Your task to perform on an android device: What's the weather going to be this weekend? Image 0: 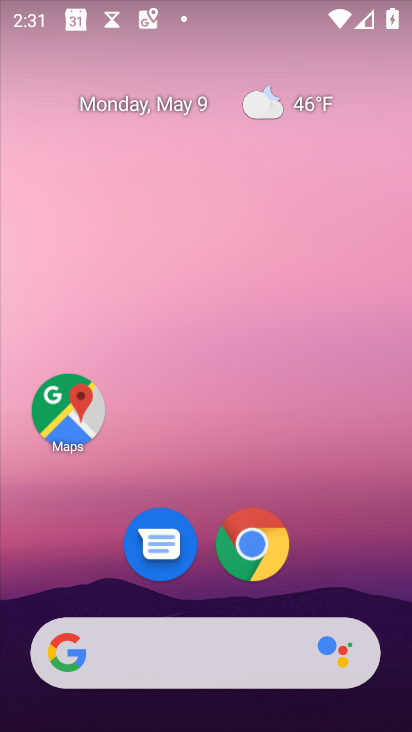
Step 0: click (243, 533)
Your task to perform on an android device: What's the weather going to be this weekend? Image 1: 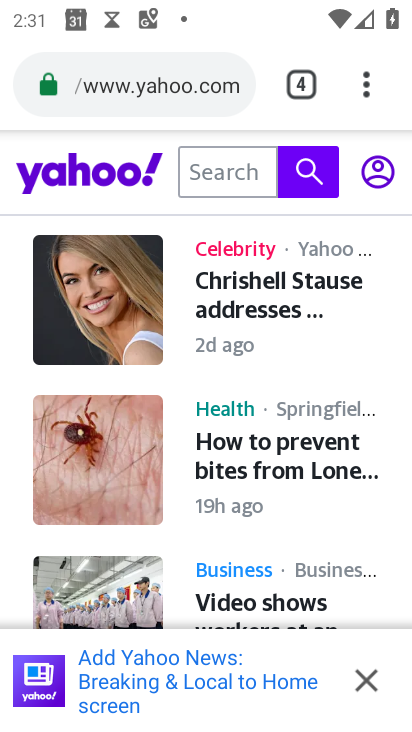
Step 1: click (300, 92)
Your task to perform on an android device: What's the weather going to be this weekend? Image 2: 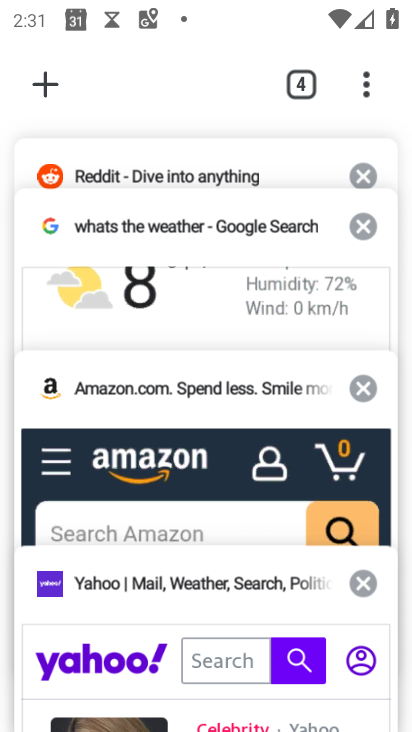
Step 2: click (48, 88)
Your task to perform on an android device: What's the weather going to be this weekend? Image 3: 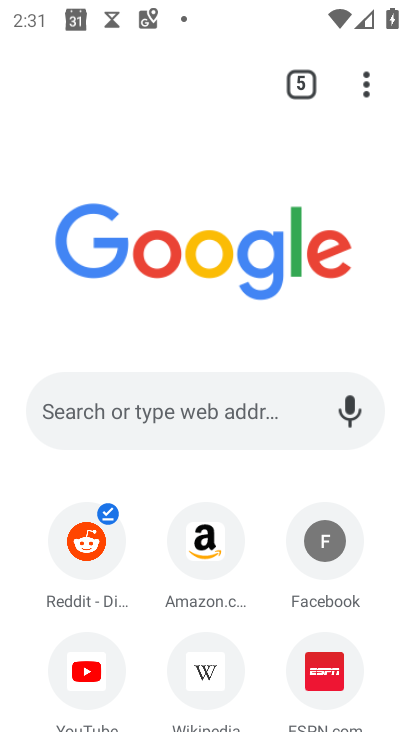
Step 3: click (195, 412)
Your task to perform on an android device: What's the weather going to be this weekend? Image 4: 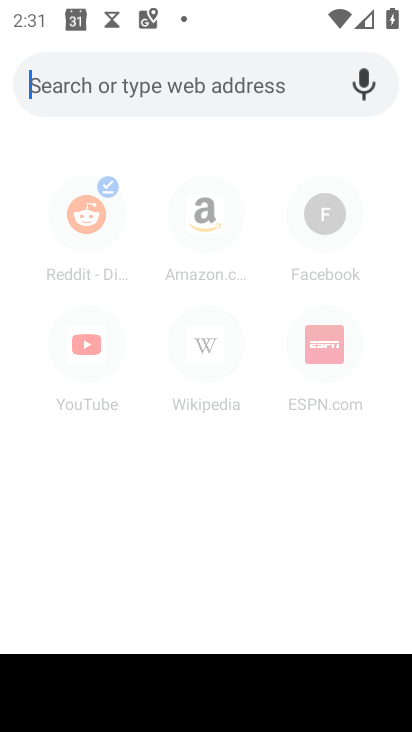
Step 4: click (140, 76)
Your task to perform on an android device: What's the weather going to be this weekend? Image 5: 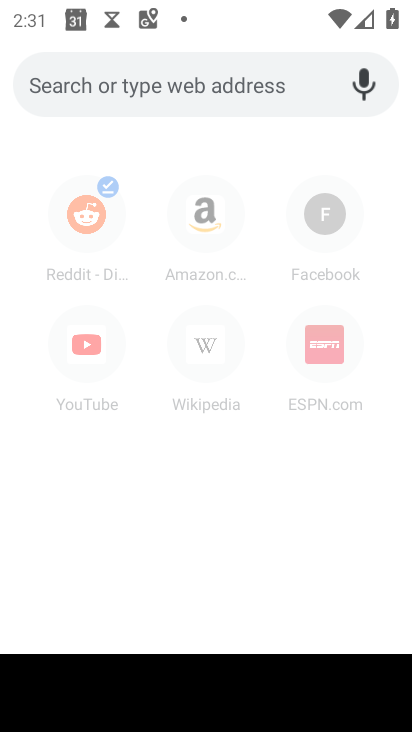
Step 5: type "what the weather going to be thus weekend"
Your task to perform on an android device: What's the weather going to be this weekend? Image 6: 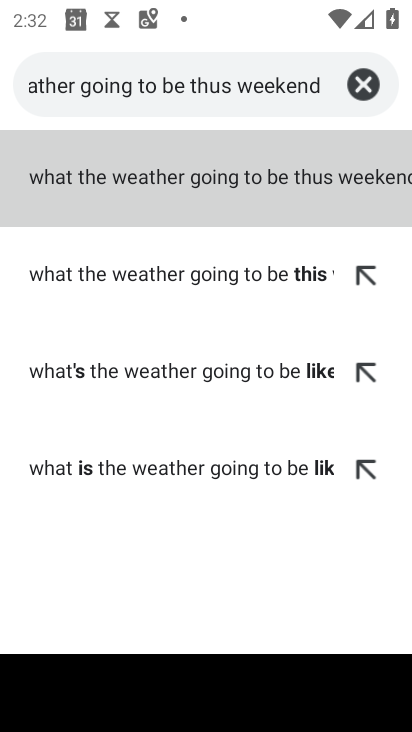
Step 6: click (145, 171)
Your task to perform on an android device: What's the weather going to be this weekend? Image 7: 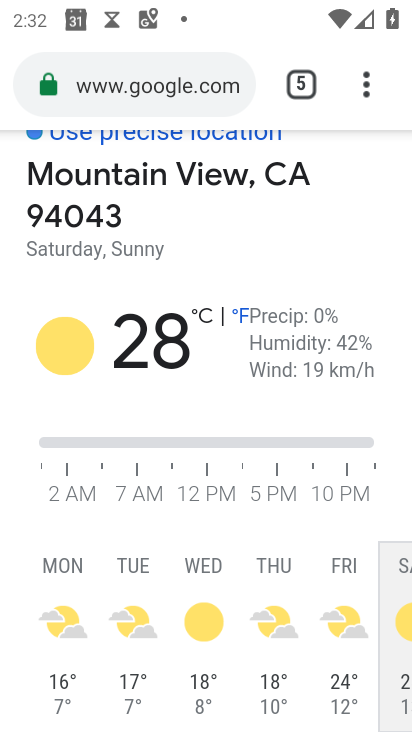
Step 7: drag from (310, 647) to (362, 435)
Your task to perform on an android device: What's the weather going to be this weekend? Image 8: 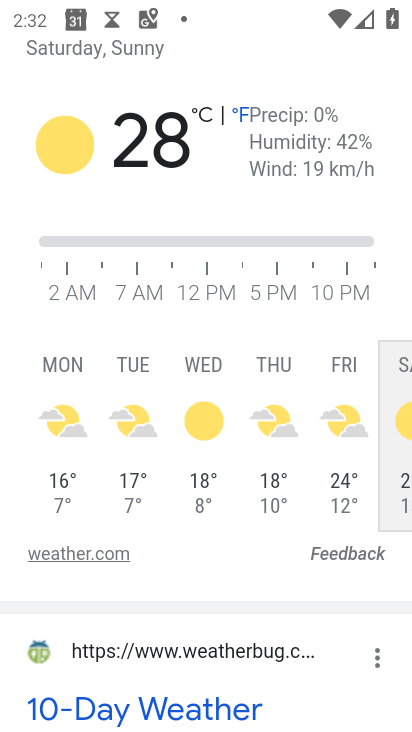
Step 8: drag from (362, 435) to (185, 462)
Your task to perform on an android device: What's the weather going to be this weekend? Image 9: 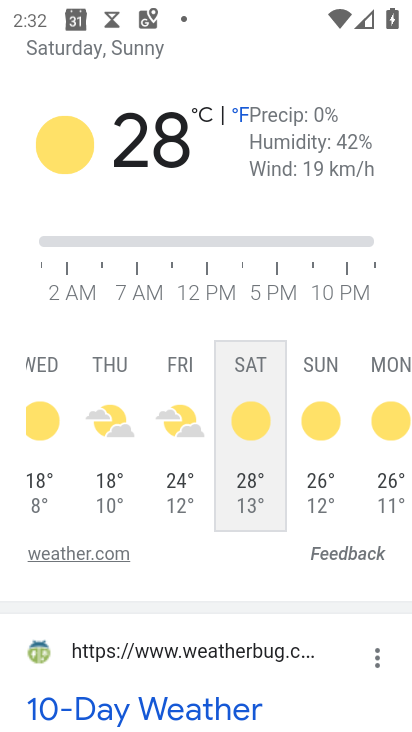
Step 9: click (185, 462)
Your task to perform on an android device: What's the weather going to be this weekend? Image 10: 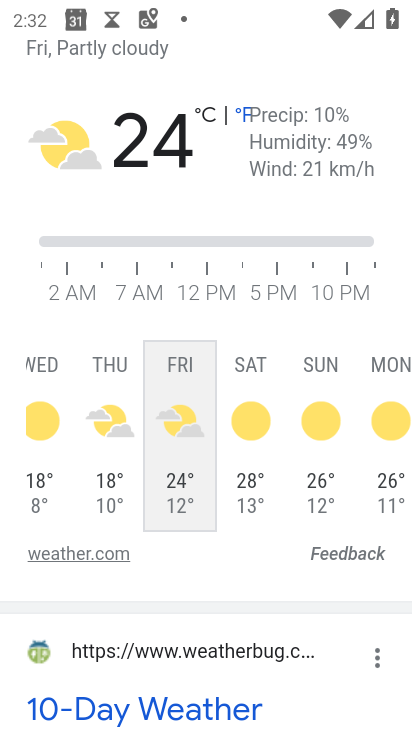
Step 10: task complete